Your task to perform on an android device: Open Google Chrome and click the shortcut for Amazon.com Image 0: 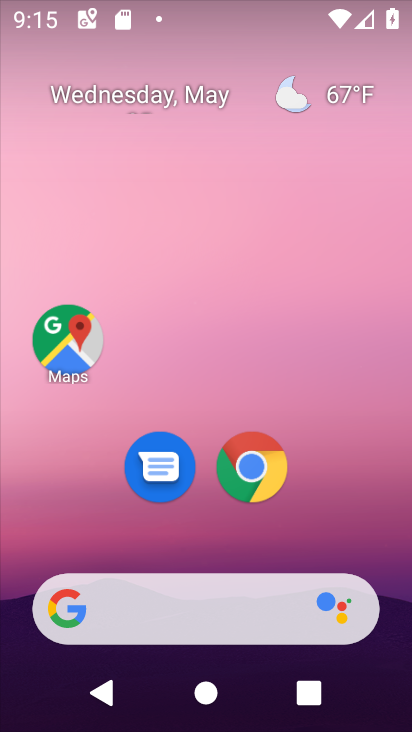
Step 0: drag from (345, 502) to (319, 48)
Your task to perform on an android device: Open Google Chrome and click the shortcut for Amazon.com Image 1: 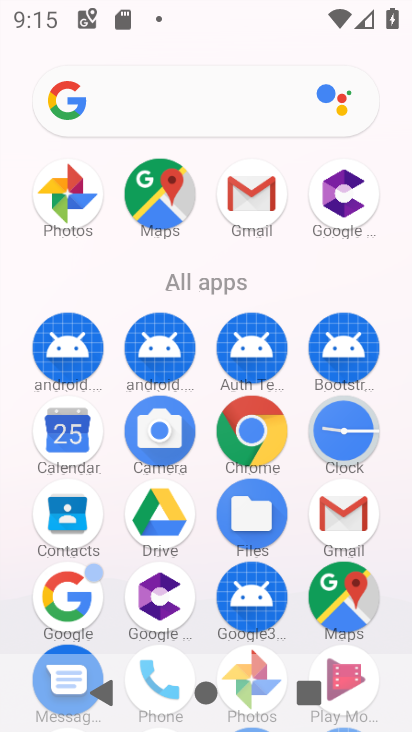
Step 1: click (257, 433)
Your task to perform on an android device: Open Google Chrome and click the shortcut for Amazon.com Image 2: 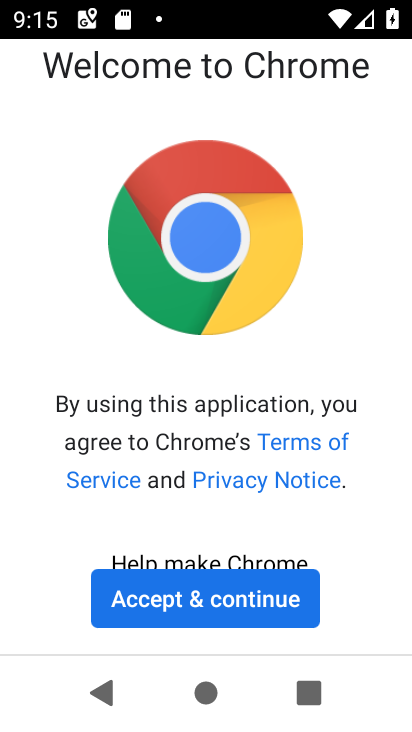
Step 2: click (231, 580)
Your task to perform on an android device: Open Google Chrome and click the shortcut for Amazon.com Image 3: 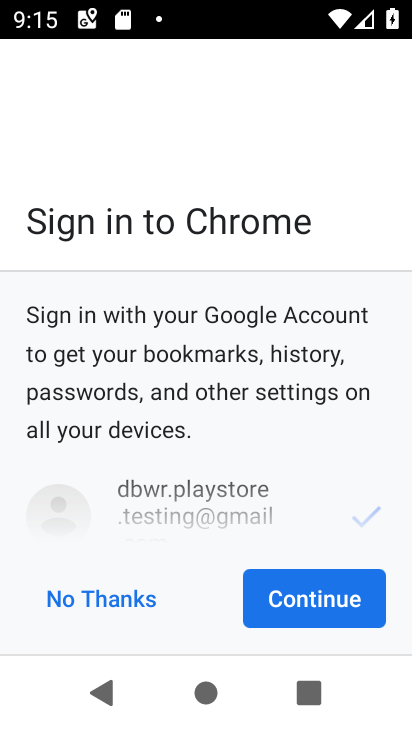
Step 3: click (313, 601)
Your task to perform on an android device: Open Google Chrome and click the shortcut for Amazon.com Image 4: 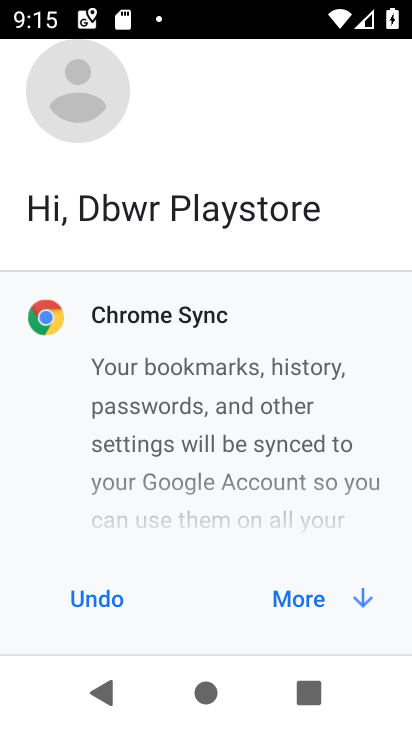
Step 4: click (312, 594)
Your task to perform on an android device: Open Google Chrome and click the shortcut for Amazon.com Image 5: 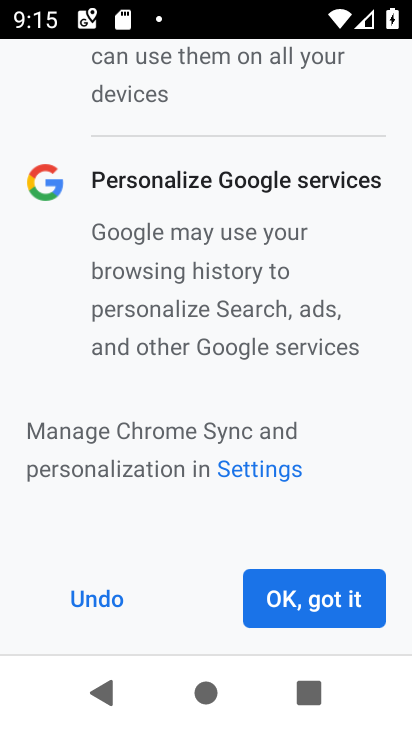
Step 5: click (312, 592)
Your task to perform on an android device: Open Google Chrome and click the shortcut for Amazon.com Image 6: 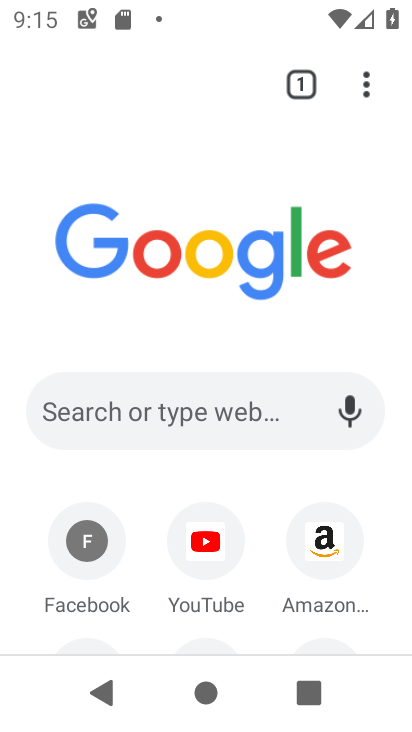
Step 6: click (338, 539)
Your task to perform on an android device: Open Google Chrome and click the shortcut for Amazon.com Image 7: 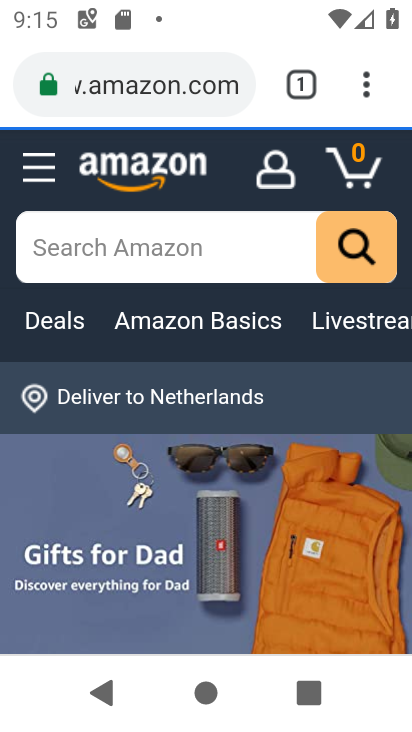
Step 7: task complete